Your task to perform on an android device: Show me popular games on the Play Store Image 0: 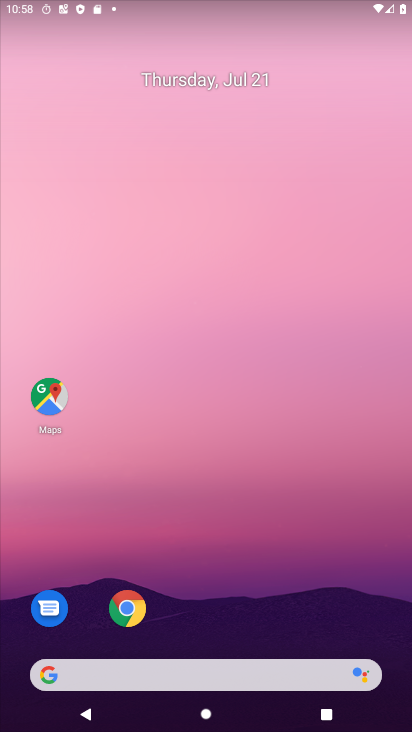
Step 0: drag from (193, 622) to (185, 14)
Your task to perform on an android device: Show me popular games on the Play Store Image 1: 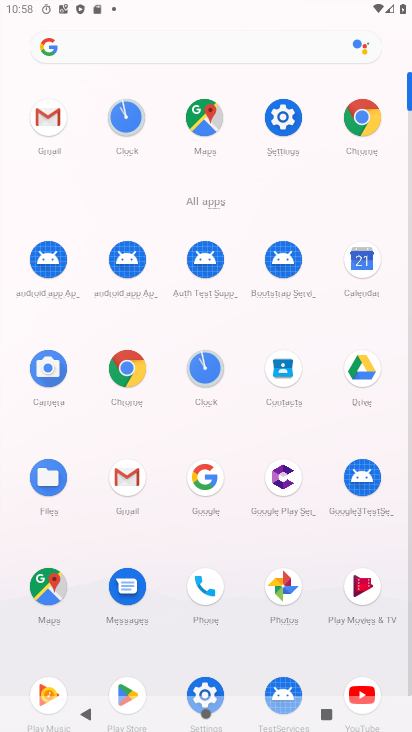
Step 1: click (129, 690)
Your task to perform on an android device: Show me popular games on the Play Store Image 2: 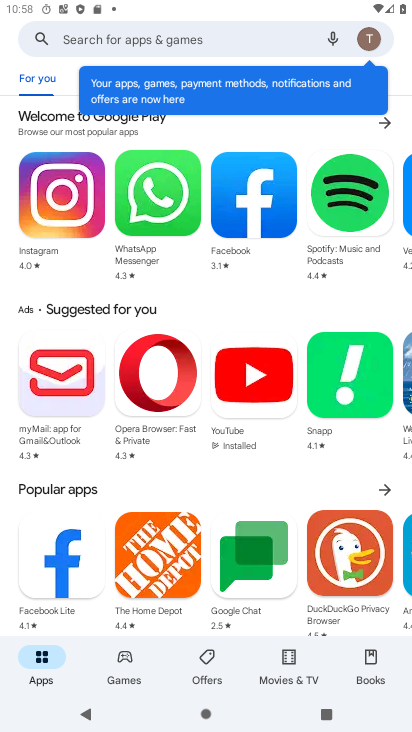
Step 2: click (114, 678)
Your task to perform on an android device: Show me popular games on the Play Store Image 3: 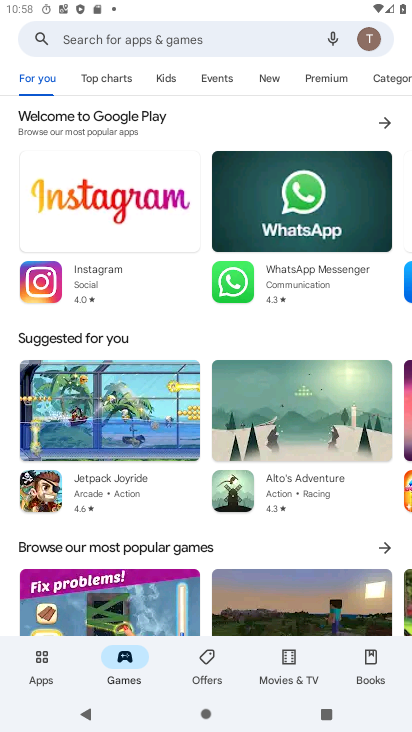
Step 3: task complete